Your task to perform on an android device: toggle location history Image 0: 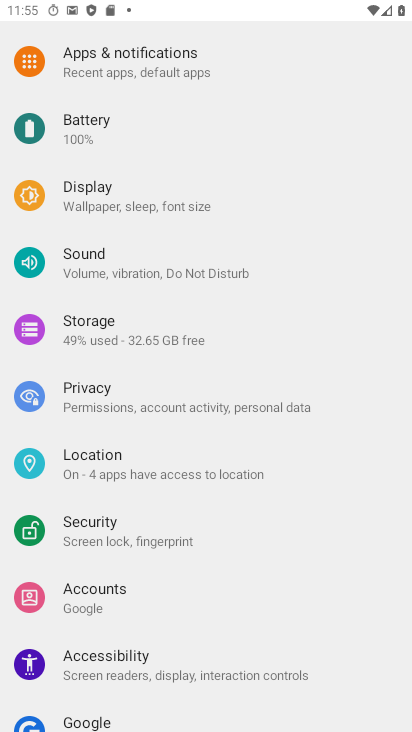
Step 0: click (149, 54)
Your task to perform on an android device: toggle location history Image 1: 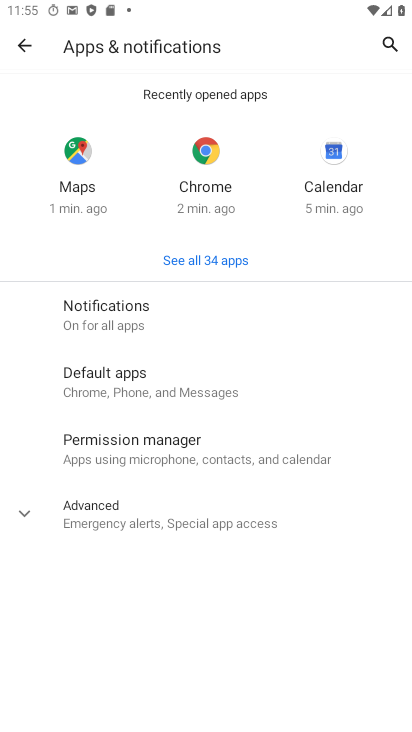
Step 1: click (98, 320)
Your task to perform on an android device: toggle location history Image 2: 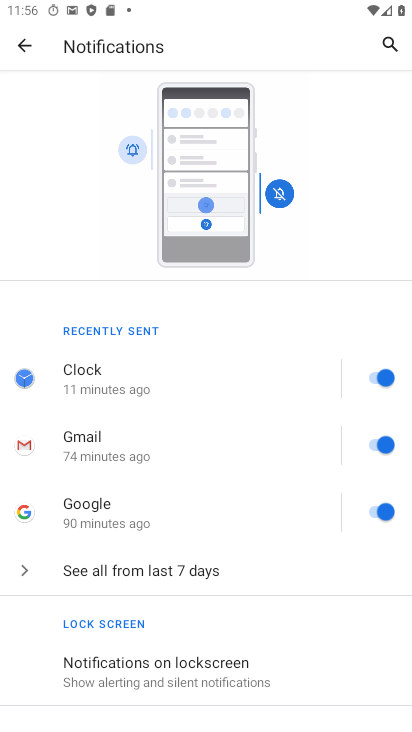
Step 2: press back button
Your task to perform on an android device: toggle location history Image 3: 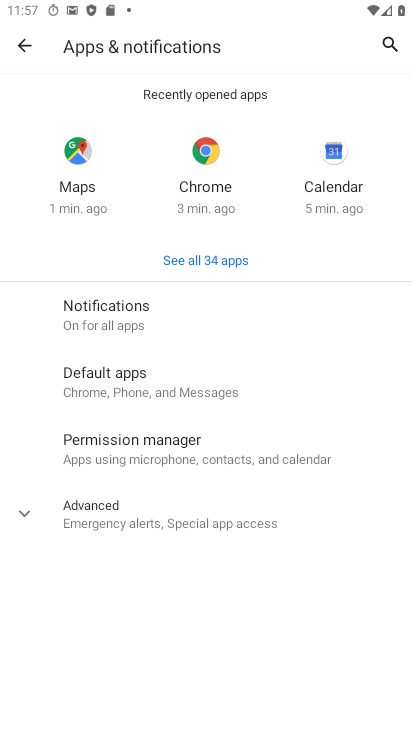
Step 3: press home button
Your task to perform on an android device: toggle location history Image 4: 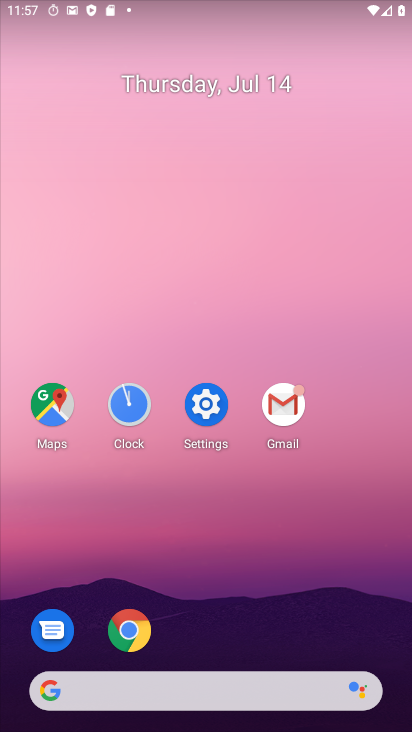
Step 4: click (204, 419)
Your task to perform on an android device: toggle location history Image 5: 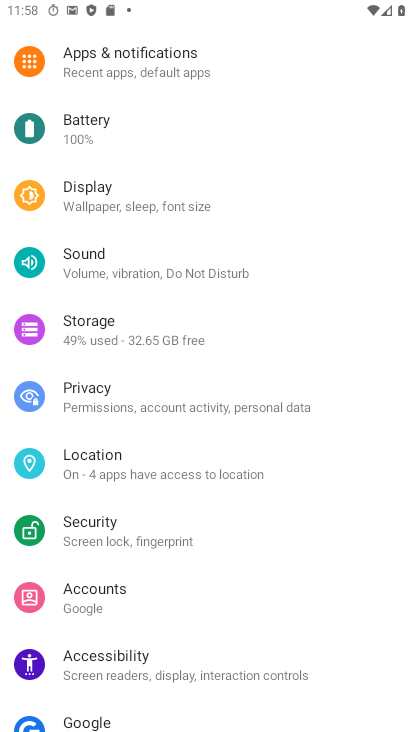
Step 5: click (86, 465)
Your task to perform on an android device: toggle location history Image 6: 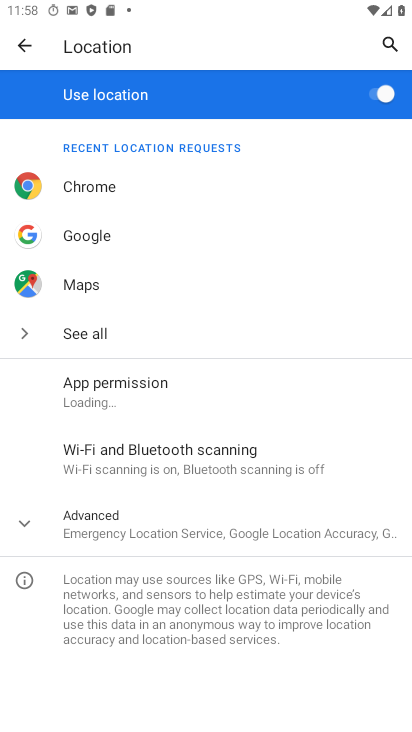
Step 6: click (36, 525)
Your task to perform on an android device: toggle location history Image 7: 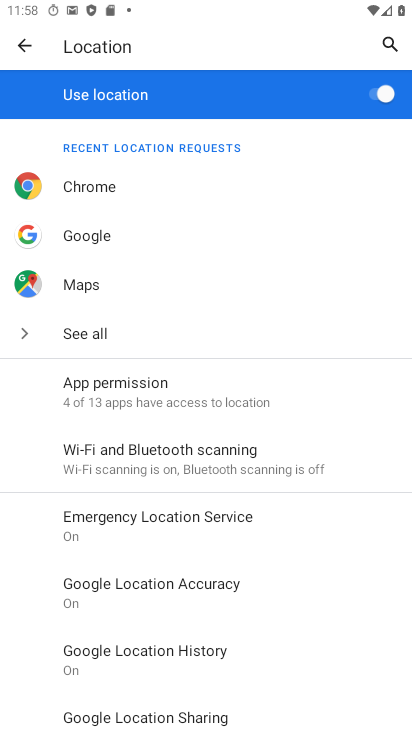
Step 7: click (158, 649)
Your task to perform on an android device: toggle location history Image 8: 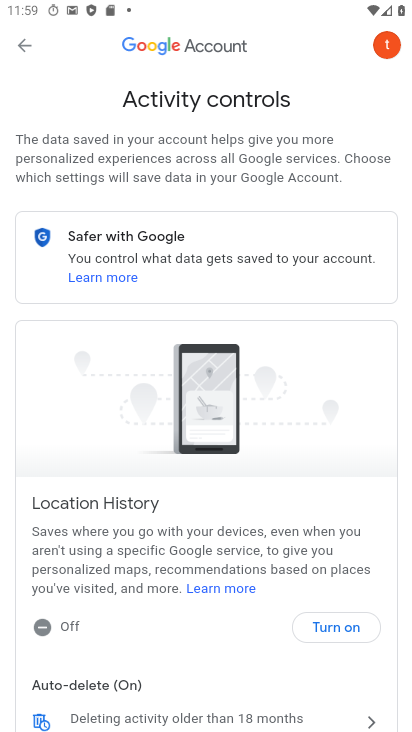
Step 8: click (319, 621)
Your task to perform on an android device: toggle location history Image 9: 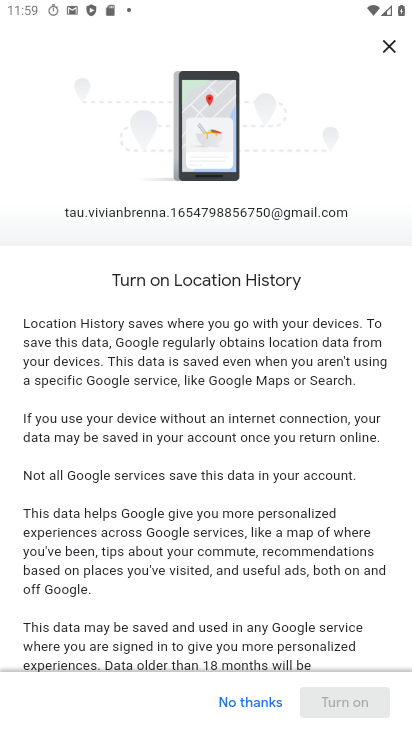
Step 9: drag from (296, 617) to (258, 217)
Your task to perform on an android device: toggle location history Image 10: 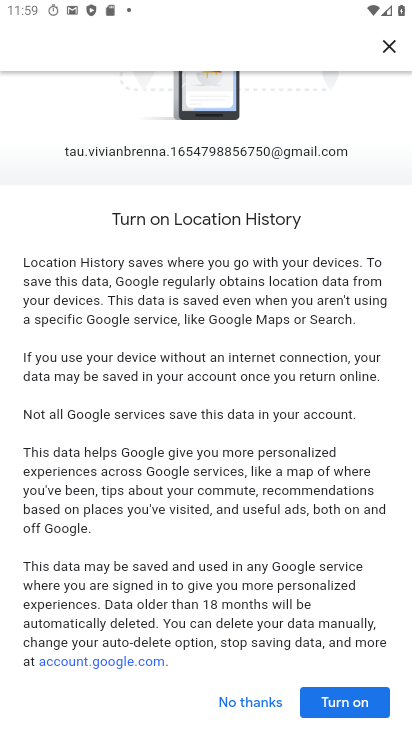
Step 10: click (304, 694)
Your task to perform on an android device: toggle location history Image 11: 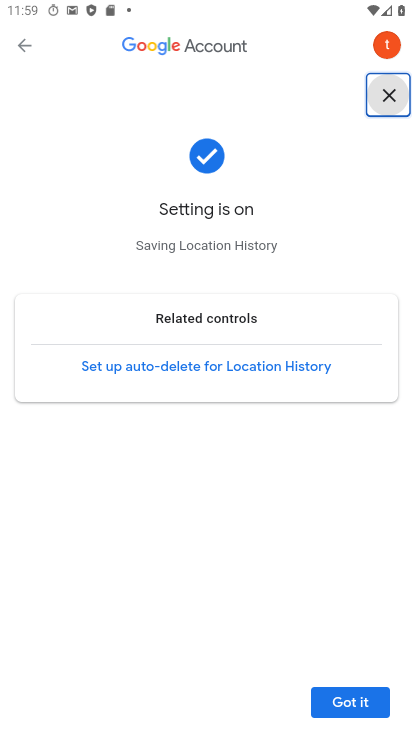
Step 11: task complete